Your task to perform on an android device: set the stopwatch Image 0: 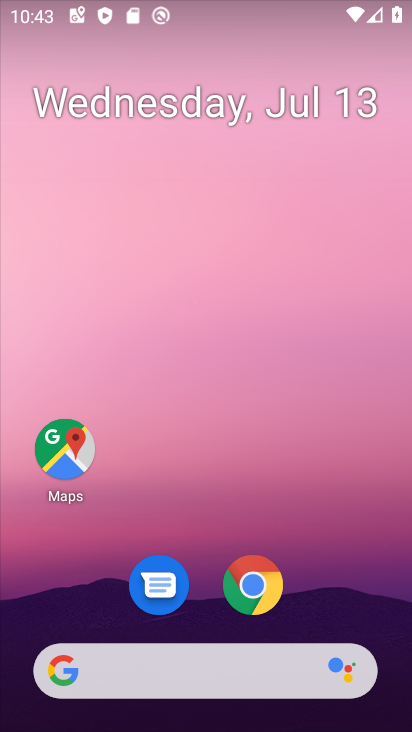
Step 0: drag from (231, 515) to (166, 43)
Your task to perform on an android device: set the stopwatch Image 1: 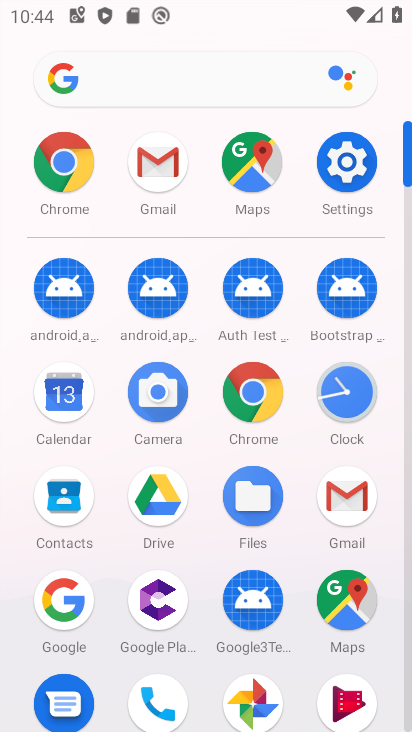
Step 1: click (347, 391)
Your task to perform on an android device: set the stopwatch Image 2: 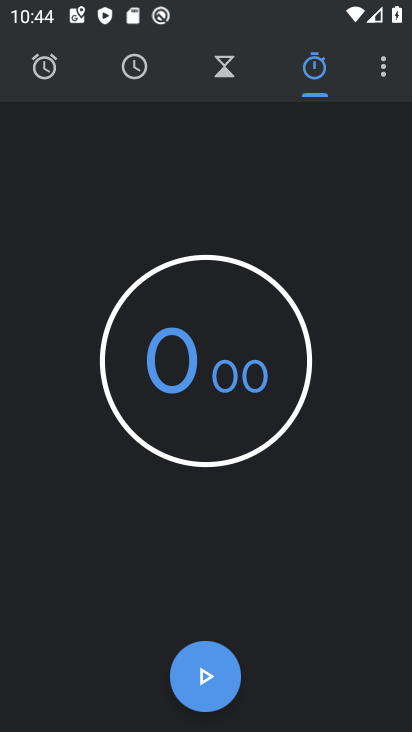
Step 2: click (315, 77)
Your task to perform on an android device: set the stopwatch Image 3: 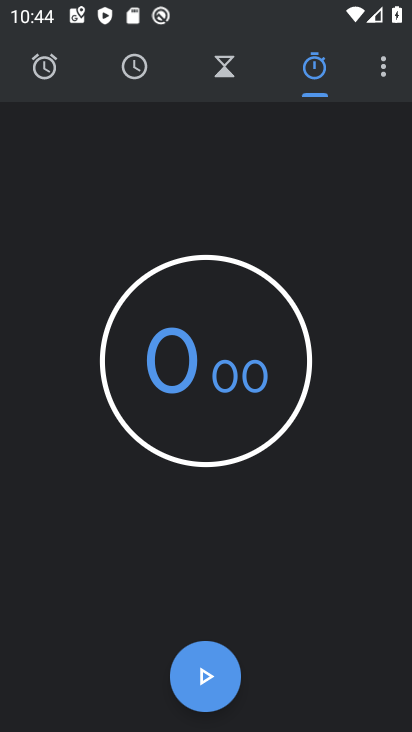
Step 3: click (206, 673)
Your task to perform on an android device: set the stopwatch Image 4: 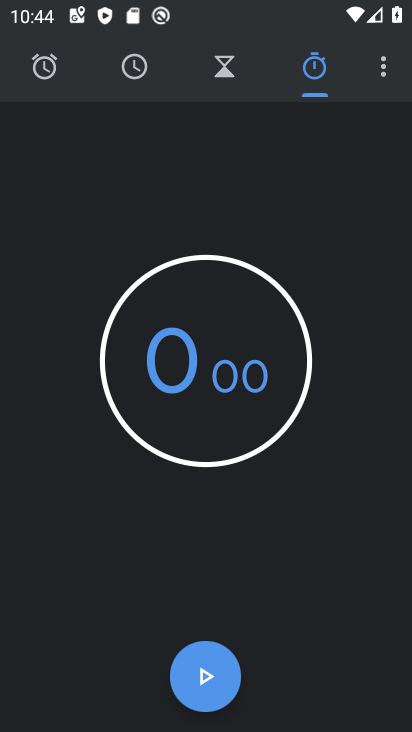
Step 4: click (206, 673)
Your task to perform on an android device: set the stopwatch Image 5: 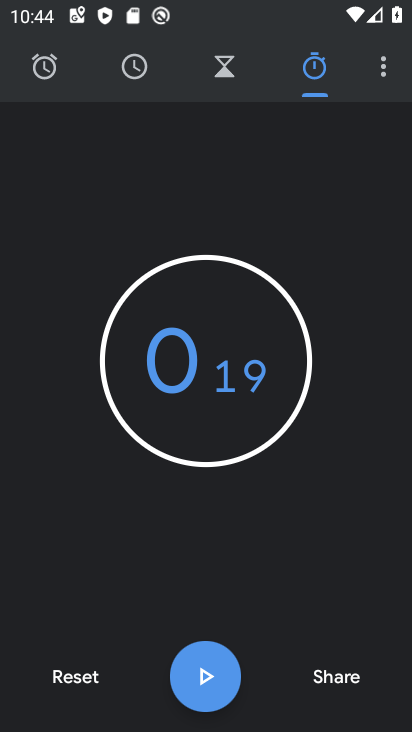
Step 5: task complete